Your task to perform on an android device: stop showing notifications on the lock screen Image 0: 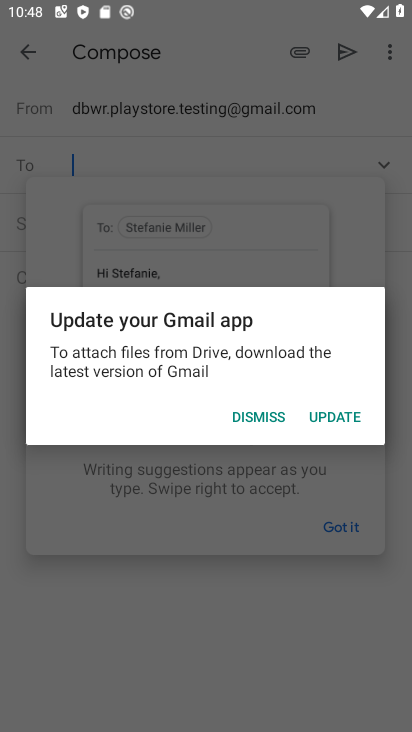
Step 0: press back button
Your task to perform on an android device: stop showing notifications on the lock screen Image 1: 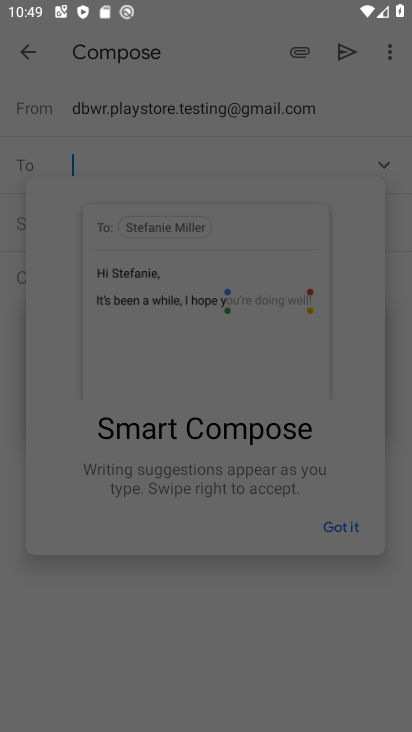
Step 1: press home button
Your task to perform on an android device: stop showing notifications on the lock screen Image 2: 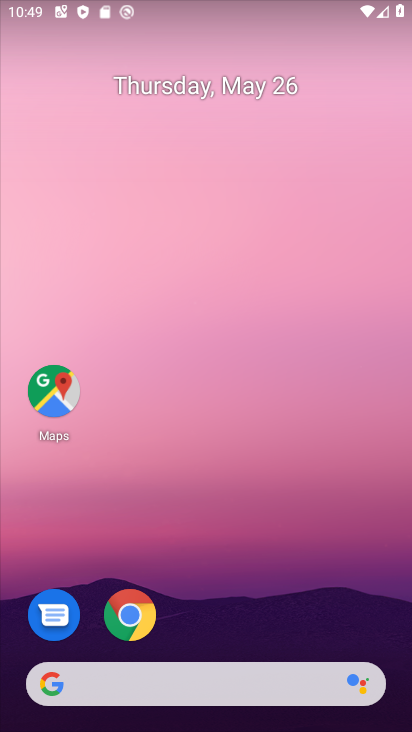
Step 2: drag from (287, 633) to (310, 74)
Your task to perform on an android device: stop showing notifications on the lock screen Image 3: 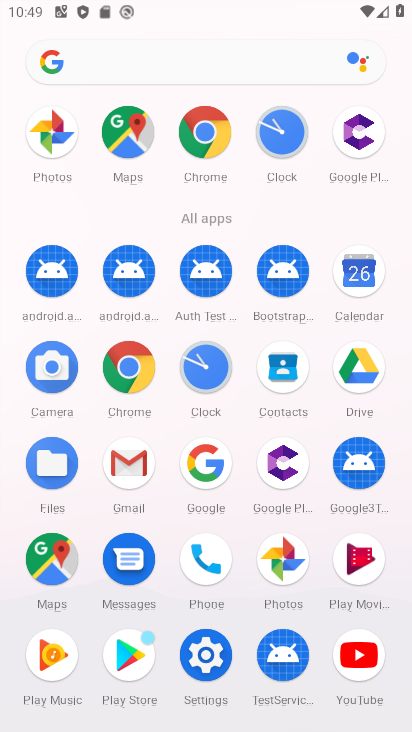
Step 3: click (206, 651)
Your task to perform on an android device: stop showing notifications on the lock screen Image 4: 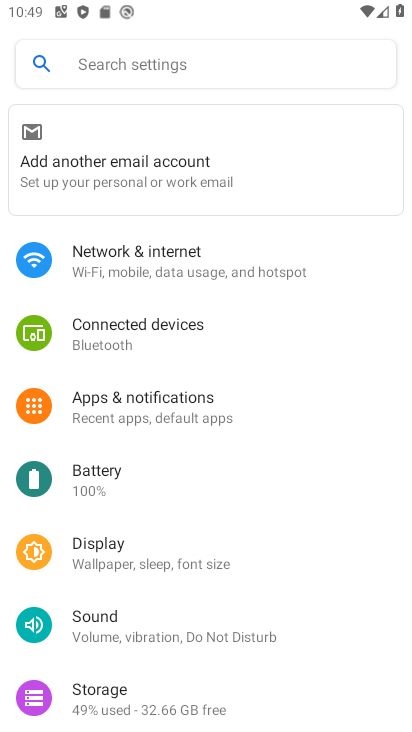
Step 4: click (190, 396)
Your task to perform on an android device: stop showing notifications on the lock screen Image 5: 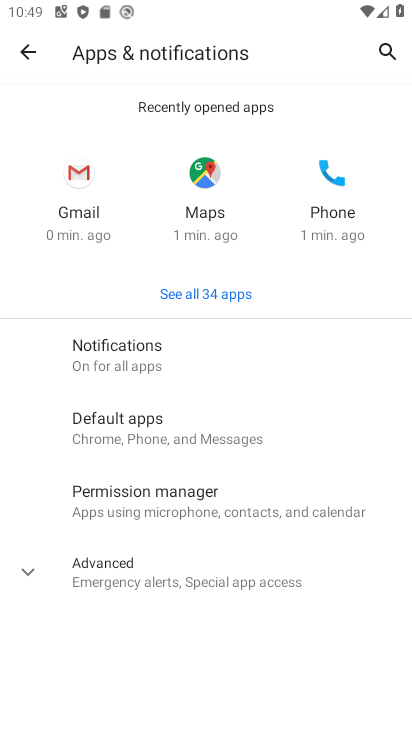
Step 5: click (179, 355)
Your task to perform on an android device: stop showing notifications on the lock screen Image 6: 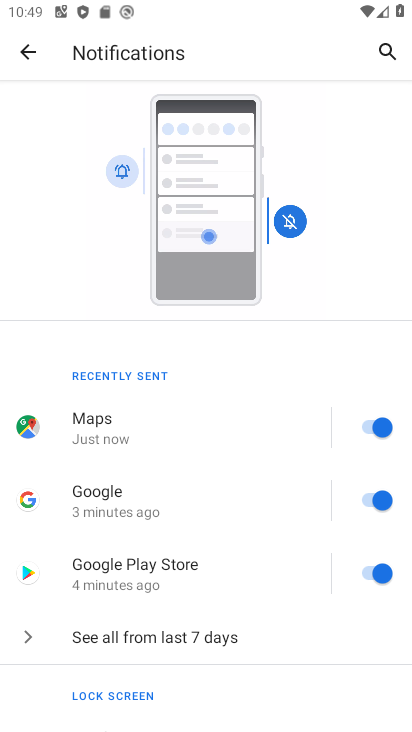
Step 6: drag from (186, 674) to (197, 313)
Your task to perform on an android device: stop showing notifications on the lock screen Image 7: 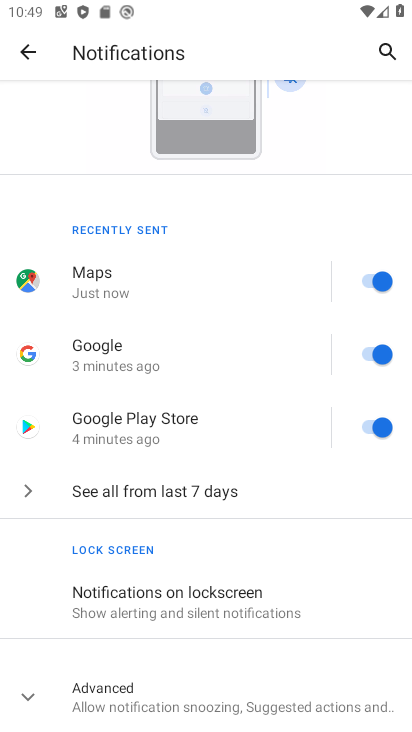
Step 7: click (158, 599)
Your task to perform on an android device: stop showing notifications on the lock screen Image 8: 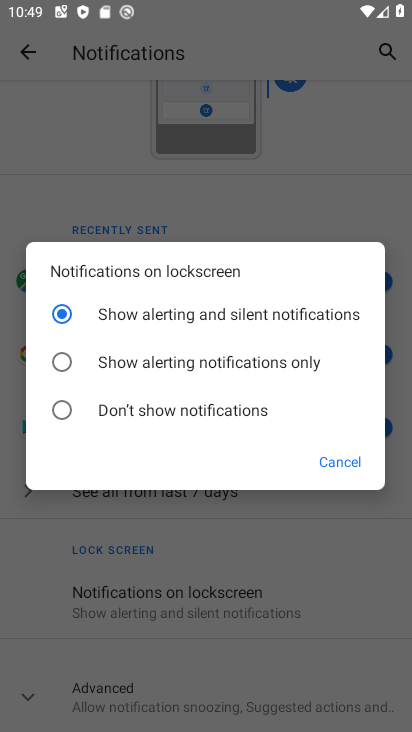
Step 8: click (67, 408)
Your task to perform on an android device: stop showing notifications on the lock screen Image 9: 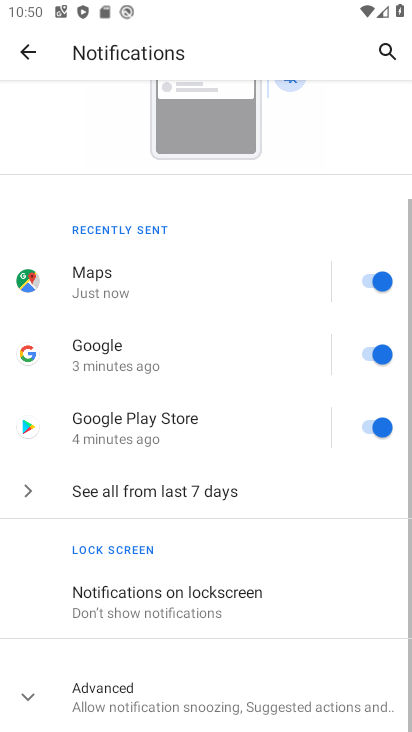
Step 9: task complete